Your task to perform on an android device: Open Google Chrome Image 0: 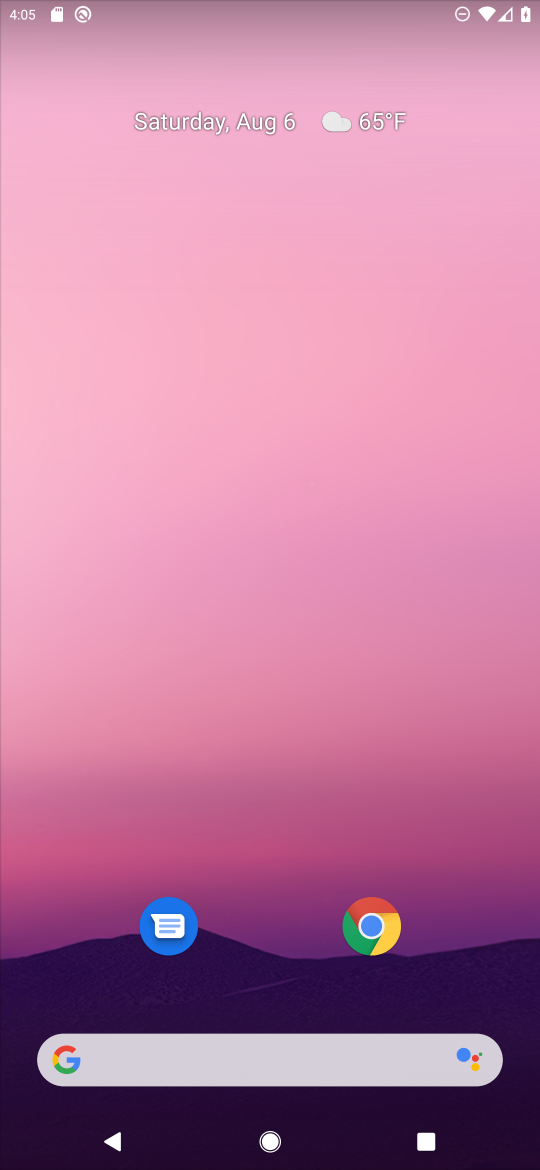
Step 0: click (356, 952)
Your task to perform on an android device: Open Google Chrome Image 1: 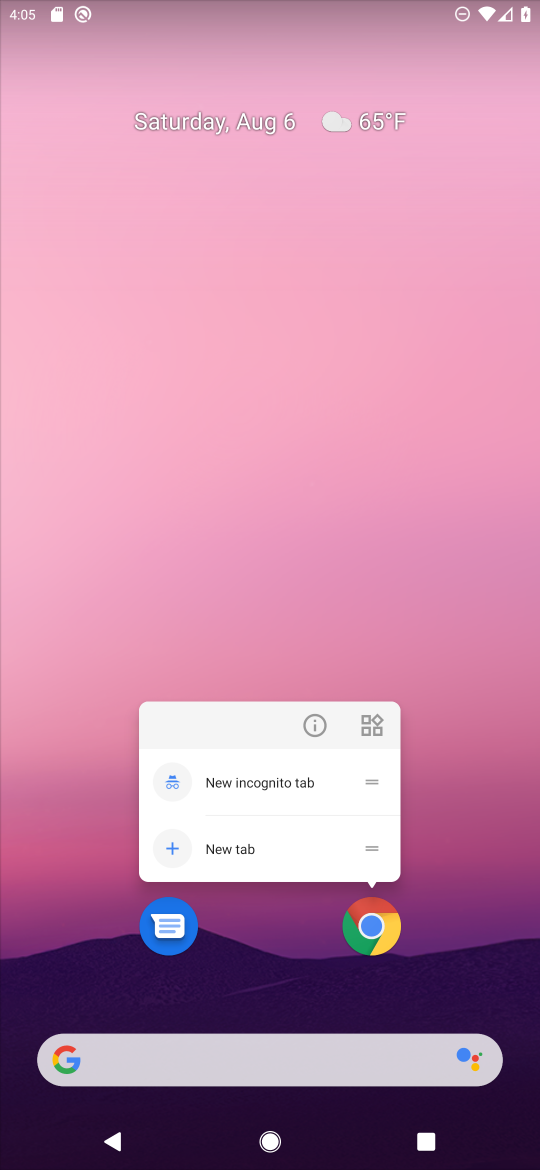
Step 1: click (356, 952)
Your task to perform on an android device: Open Google Chrome Image 2: 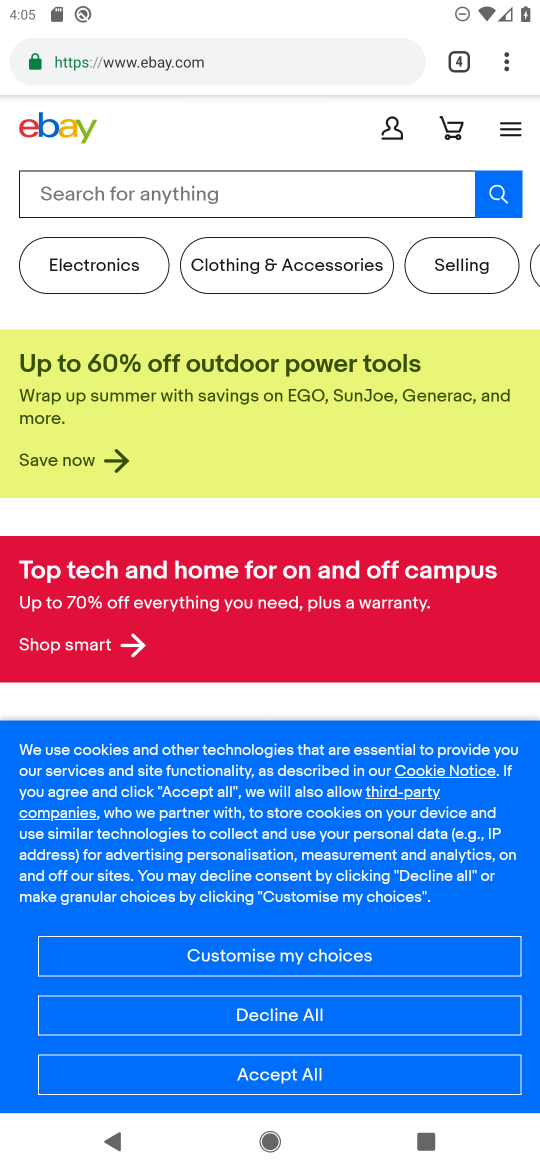
Step 2: task complete